Your task to perform on an android device: open chrome privacy settings Image 0: 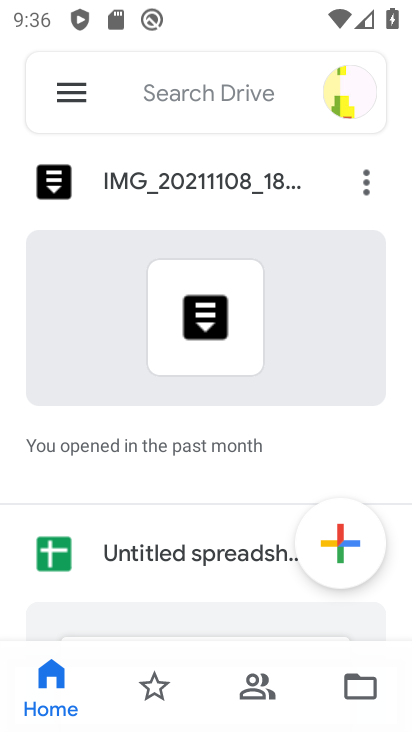
Step 0: press home button
Your task to perform on an android device: open chrome privacy settings Image 1: 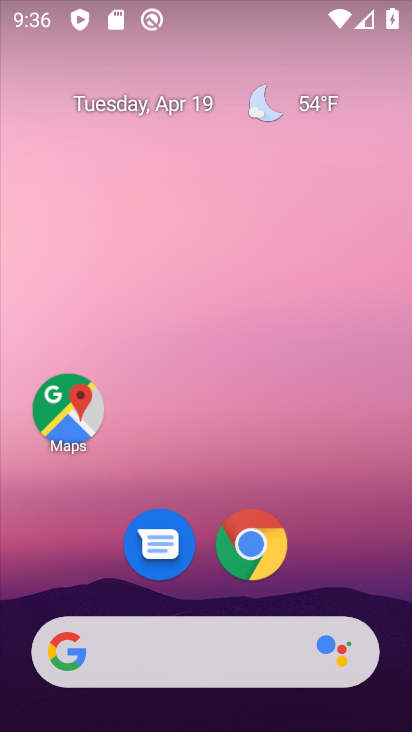
Step 1: drag from (343, 514) to (341, 122)
Your task to perform on an android device: open chrome privacy settings Image 2: 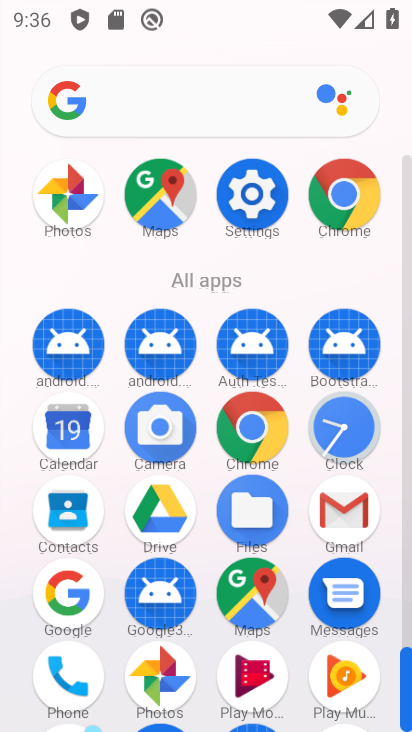
Step 2: click (257, 207)
Your task to perform on an android device: open chrome privacy settings Image 3: 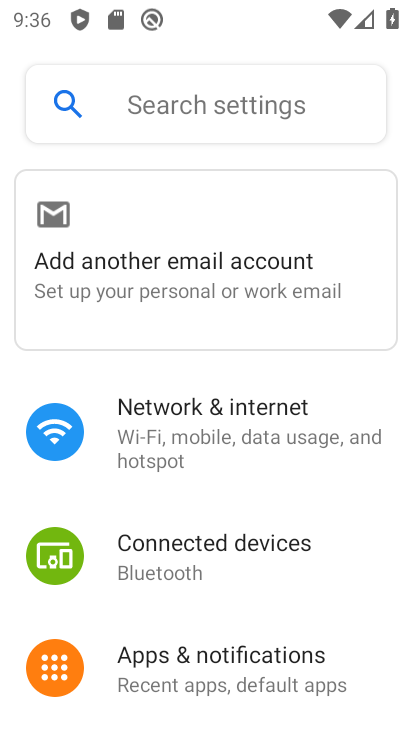
Step 3: drag from (218, 630) to (217, 208)
Your task to perform on an android device: open chrome privacy settings Image 4: 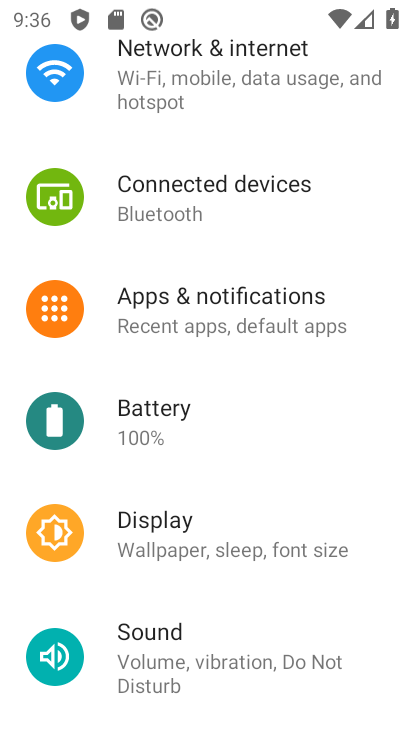
Step 4: drag from (213, 662) to (249, 326)
Your task to perform on an android device: open chrome privacy settings Image 5: 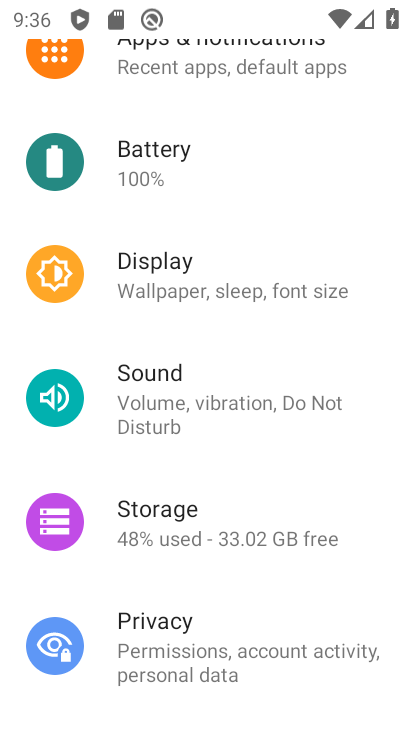
Step 5: click (186, 646)
Your task to perform on an android device: open chrome privacy settings Image 6: 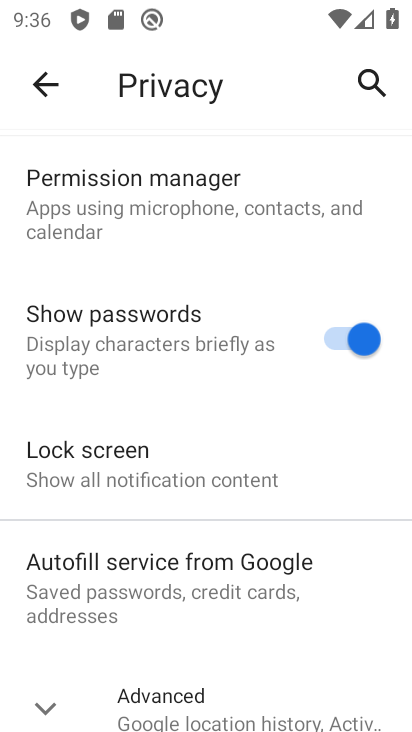
Step 6: task complete